Your task to perform on an android device: Open ESPN.com Image 0: 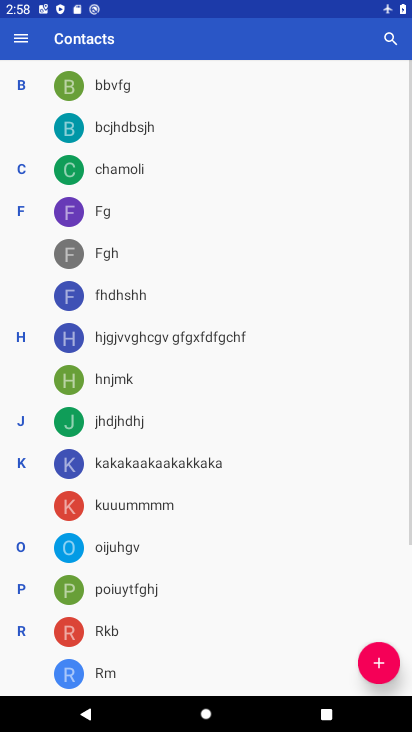
Step 0: press home button
Your task to perform on an android device: Open ESPN.com Image 1: 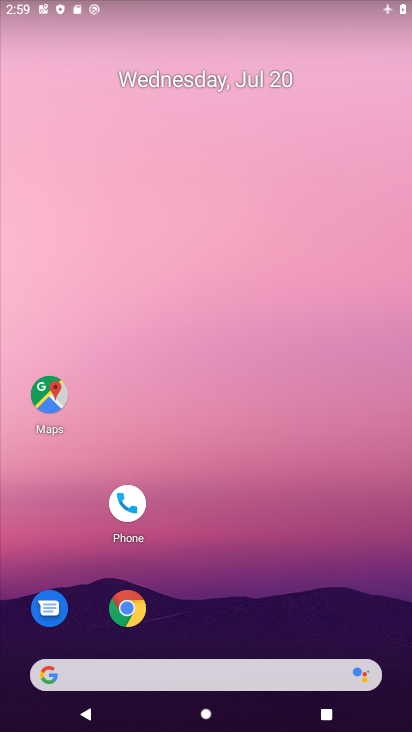
Step 1: drag from (300, 611) to (305, 100)
Your task to perform on an android device: Open ESPN.com Image 2: 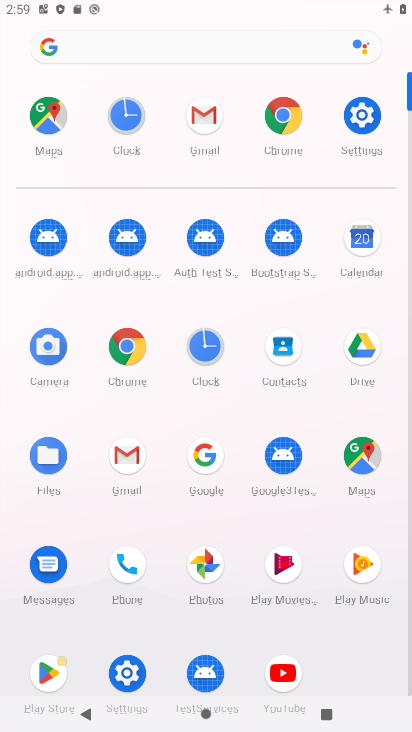
Step 2: click (285, 121)
Your task to perform on an android device: Open ESPN.com Image 3: 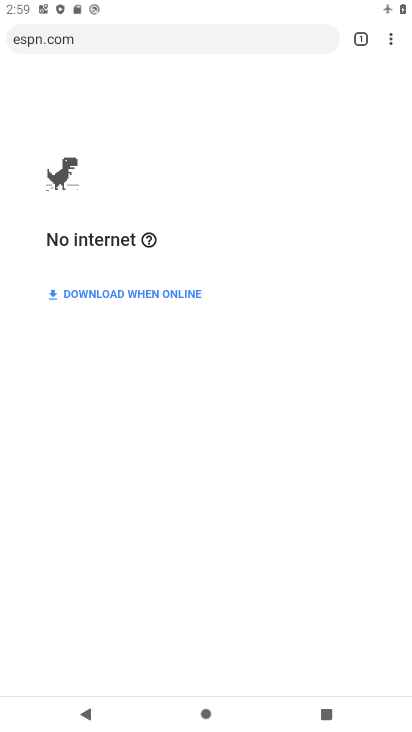
Step 3: task complete